Your task to perform on an android device: Open location settings Image 0: 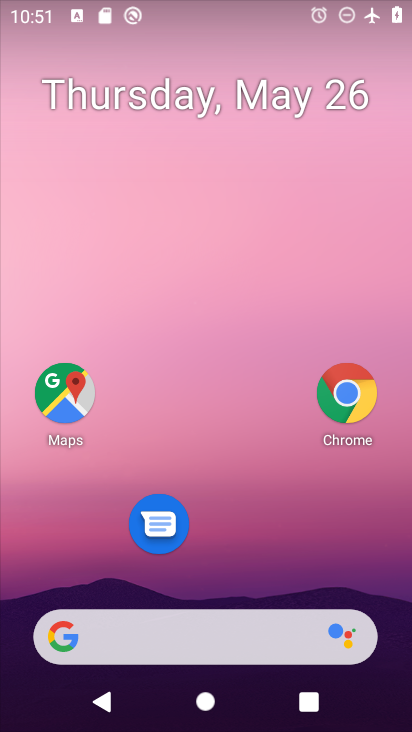
Step 0: drag from (273, 547) to (236, 52)
Your task to perform on an android device: Open location settings Image 1: 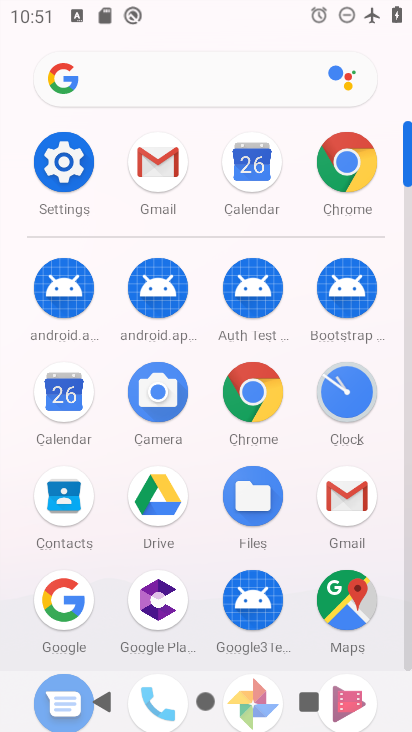
Step 1: click (55, 156)
Your task to perform on an android device: Open location settings Image 2: 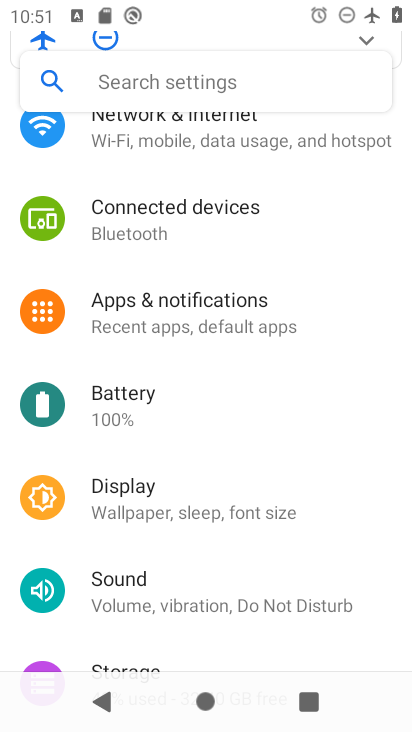
Step 2: drag from (203, 450) to (225, 50)
Your task to perform on an android device: Open location settings Image 3: 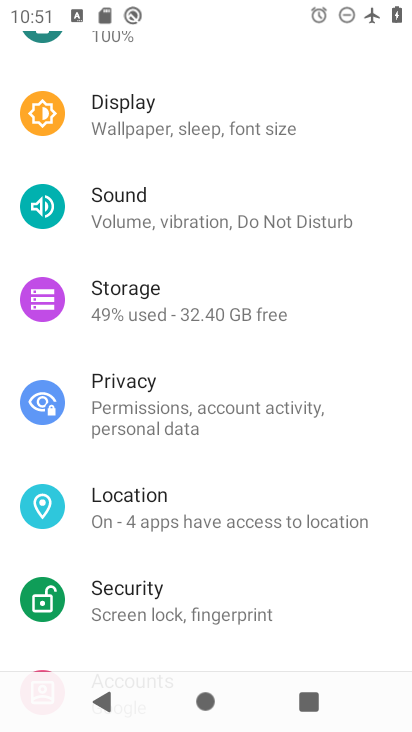
Step 3: click (215, 498)
Your task to perform on an android device: Open location settings Image 4: 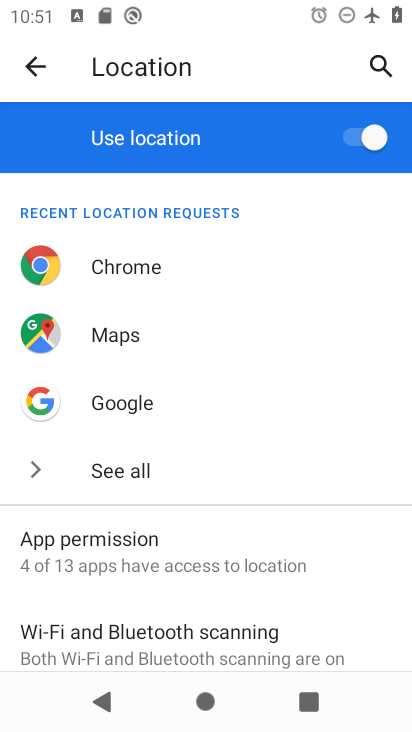
Step 4: task complete